Your task to perform on an android device: change text size in settings app Image 0: 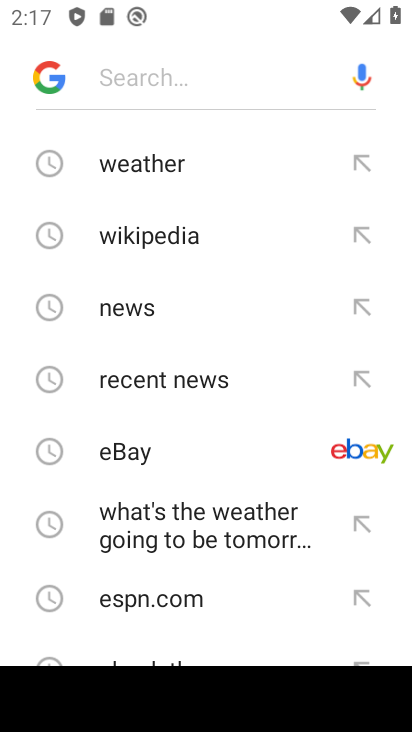
Step 0: press back button
Your task to perform on an android device: change text size in settings app Image 1: 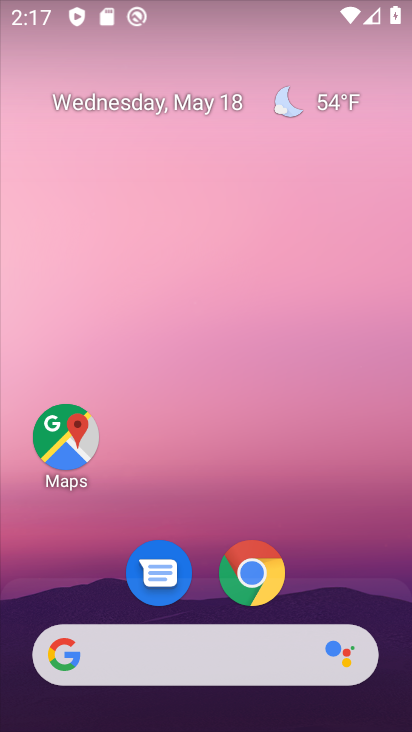
Step 1: drag from (63, 635) to (184, 238)
Your task to perform on an android device: change text size in settings app Image 2: 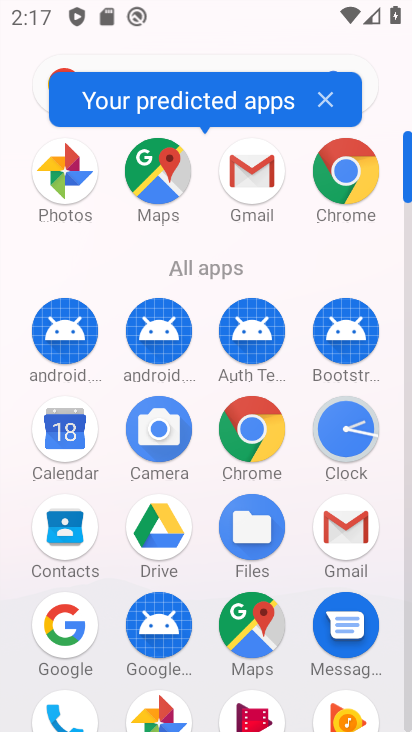
Step 2: drag from (148, 625) to (239, 384)
Your task to perform on an android device: change text size in settings app Image 3: 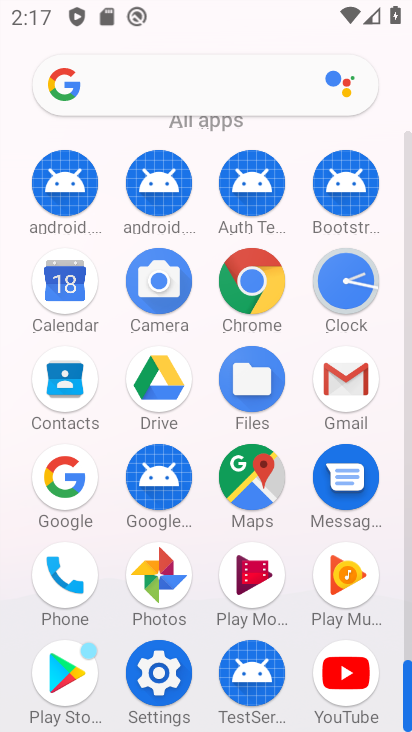
Step 3: click (167, 695)
Your task to perform on an android device: change text size in settings app Image 4: 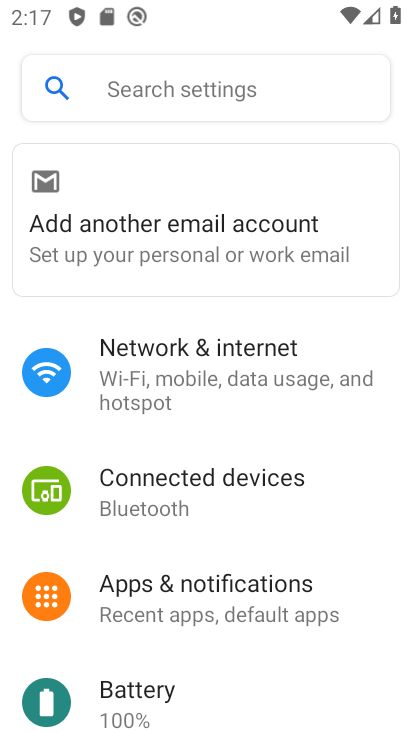
Step 4: drag from (199, 691) to (332, 320)
Your task to perform on an android device: change text size in settings app Image 5: 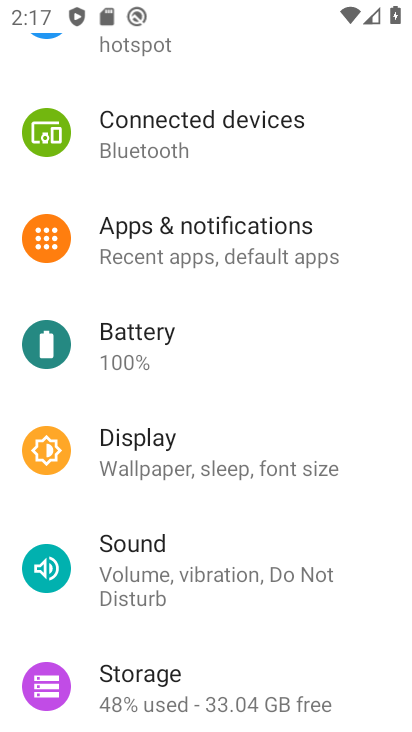
Step 5: click (245, 477)
Your task to perform on an android device: change text size in settings app Image 6: 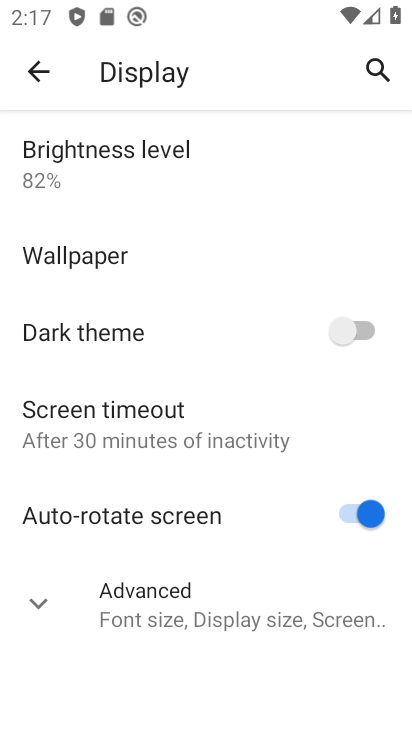
Step 6: click (208, 601)
Your task to perform on an android device: change text size in settings app Image 7: 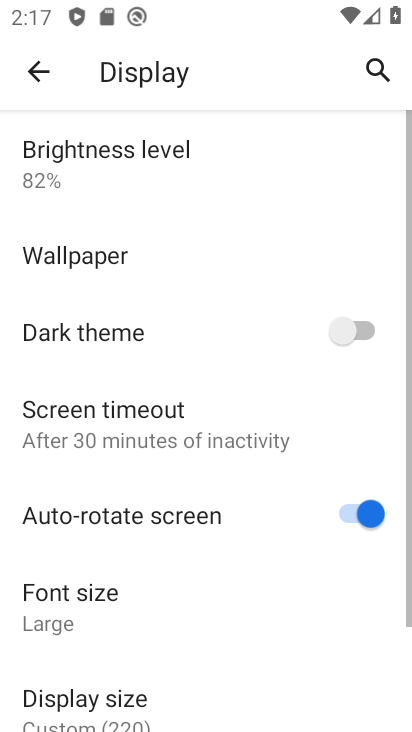
Step 7: drag from (208, 600) to (283, 327)
Your task to perform on an android device: change text size in settings app Image 8: 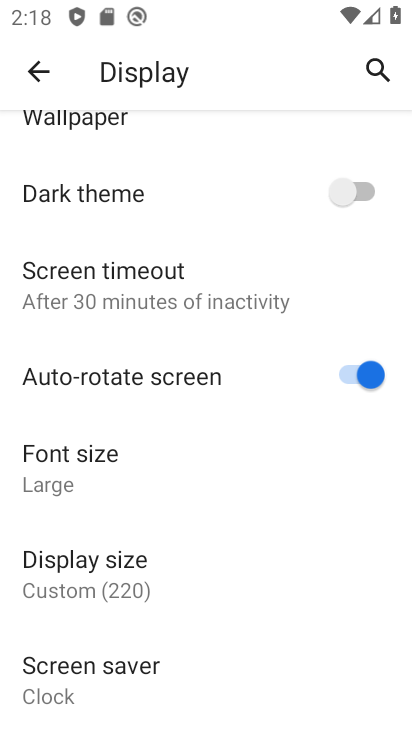
Step 8: click (165, 483)
Your task to perform on an android device: change text size in settings app Image 9: 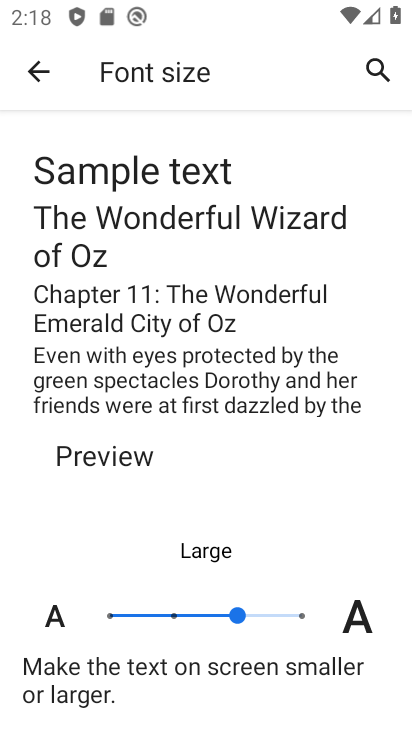
Step 9: click (302, 613)
Your task to perform on an android device: change text size in settings app Image 10: 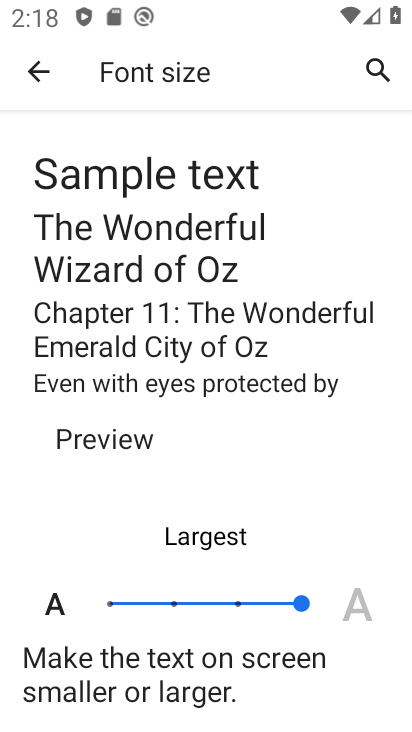
Step 10: task complete